Your task to perform on an android device: Go to Amazon Image 0: 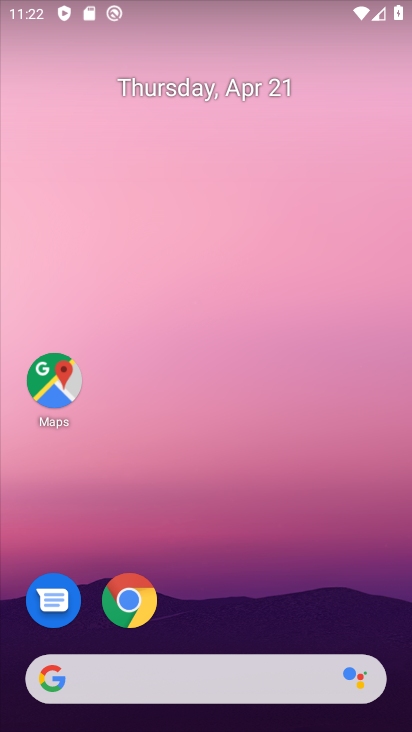
Step 0: click (119, 614)
Your task to perform on an android device: Go to Amazon Image 1: 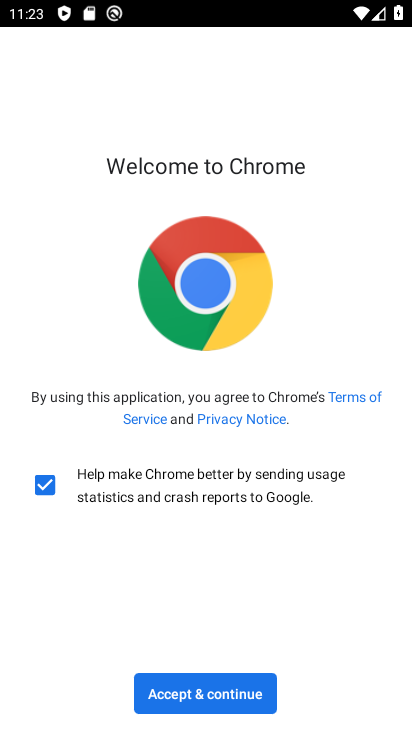
Step 1: click (172, 706)
Your task to perform on an android device: Go to Amazon Image 2: 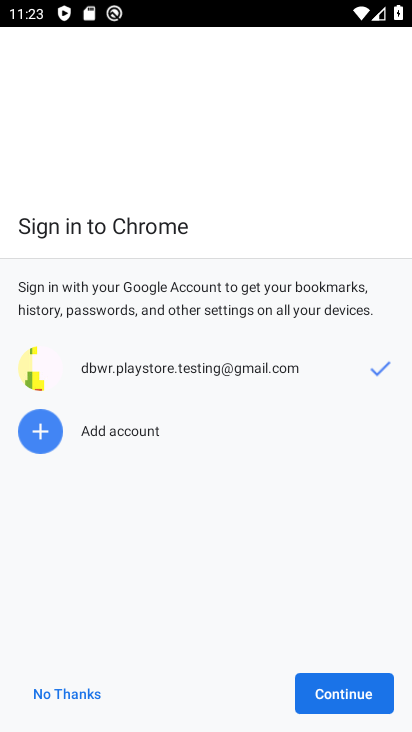
Step 2: click (329, 708)
Your task to perform on an android device: Go to Amazon Image 3: 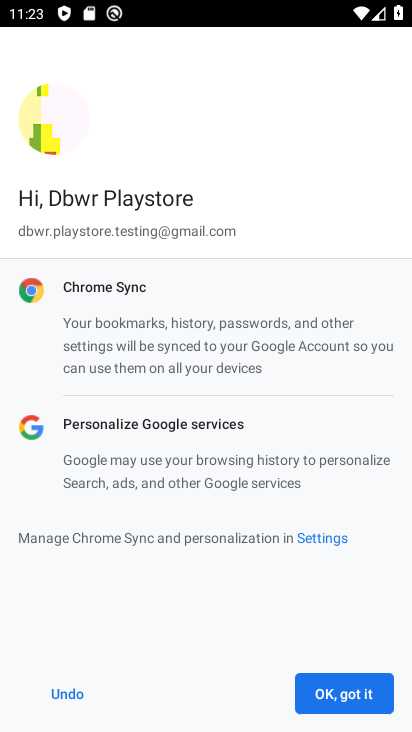
Step 3: click (313, 703)
Your task to perform on an android device: Go to Amazon Image 4: 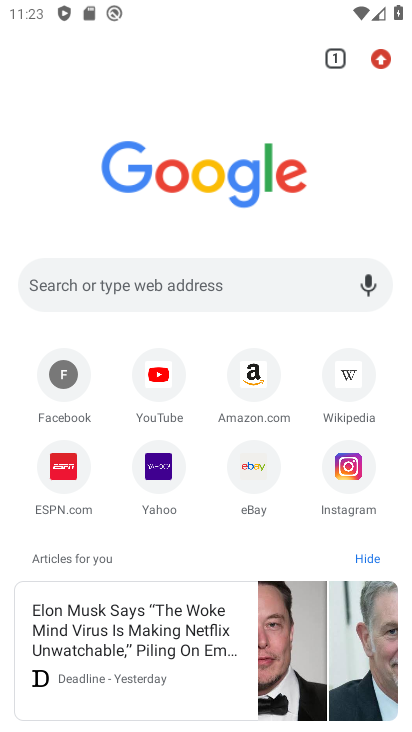
Step 4: click (211, 276)
Your task to perform on an android device: Go to Amazon Image 5: 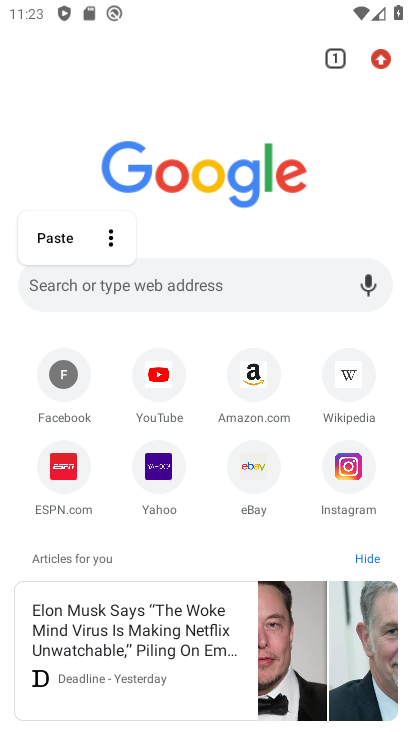
Step 5: click (297, 282)
Your task to perform on an android device: Go to Amazon Image 6: 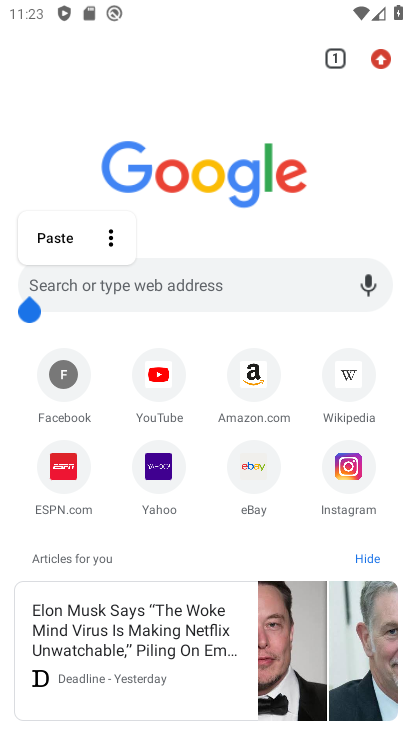
Step 6: click (221, 280)
Your task to perform on an android device: Go to Amazon Image 7: 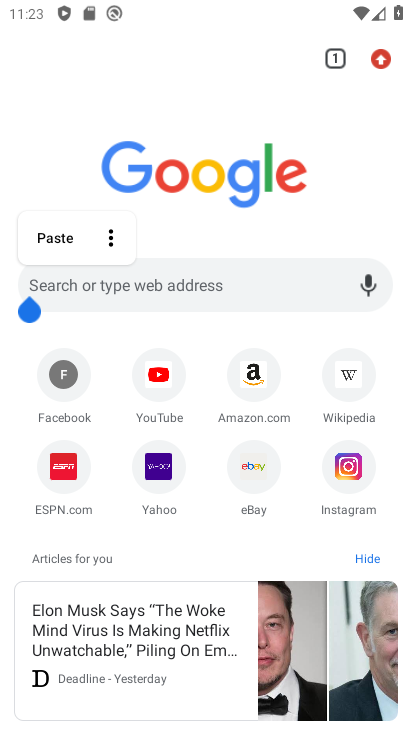
Step 7: click (180, 269)
Your task to perform on an android device: Go to Amazon Image 8: 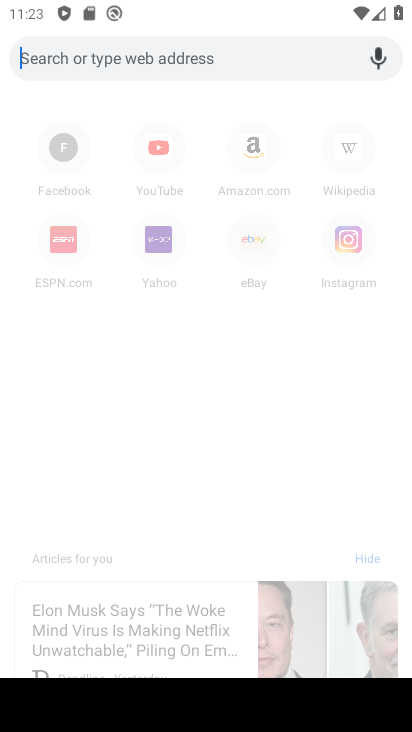
Step 8: type "Amazon"
Your task to perform on an android device: Go to Amazon Image 9: 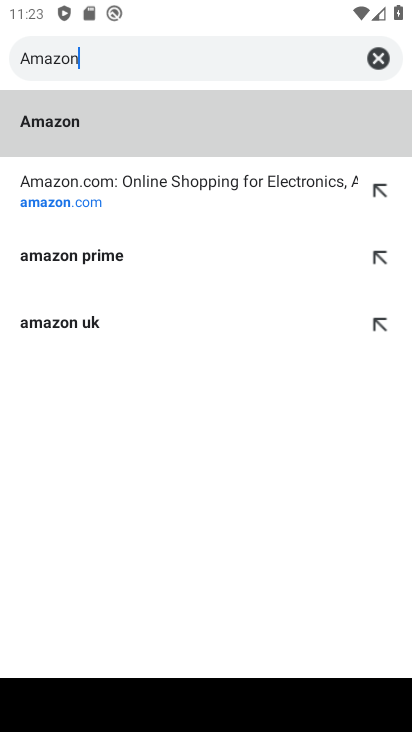
Step 9: click (59, 206)
Your task to perform on an android device: Go to Amazon Image 10: 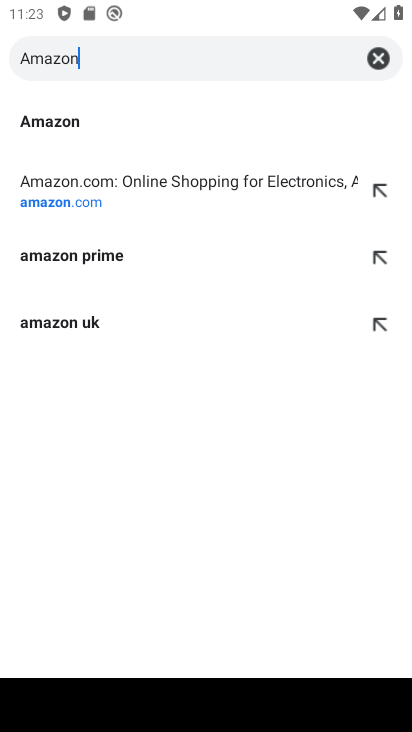
Step 10: click (48, 207)
Your task to perform on an android device: Go to Amazon Image 11: 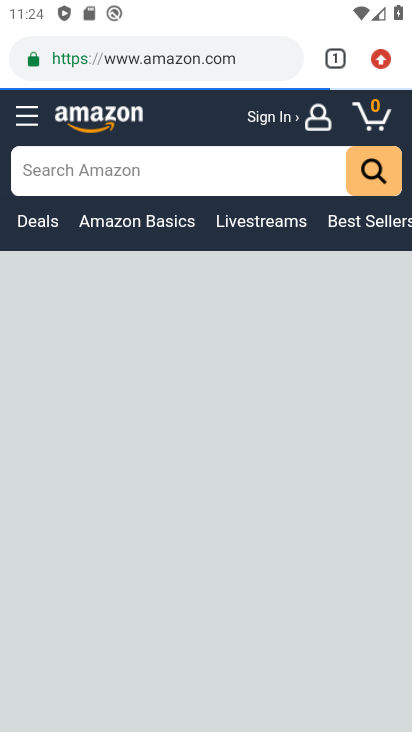
Step 11: task complete